Your task to perform on an android device: toggle improve location accuracy Image 0: 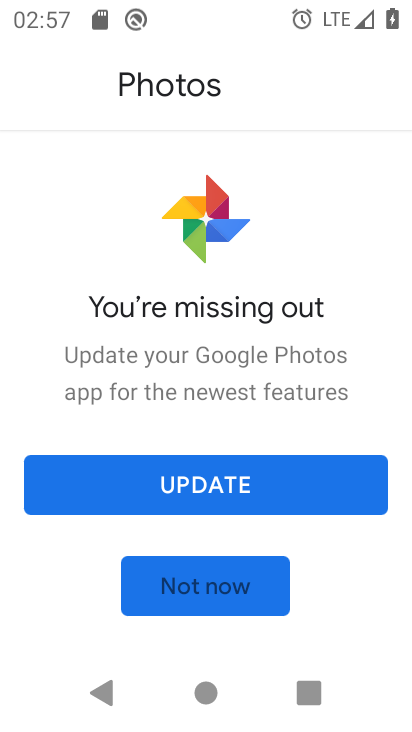
Step 0: press home button
Your task to perform on an android device: toggle improve location accuracy Image 1: 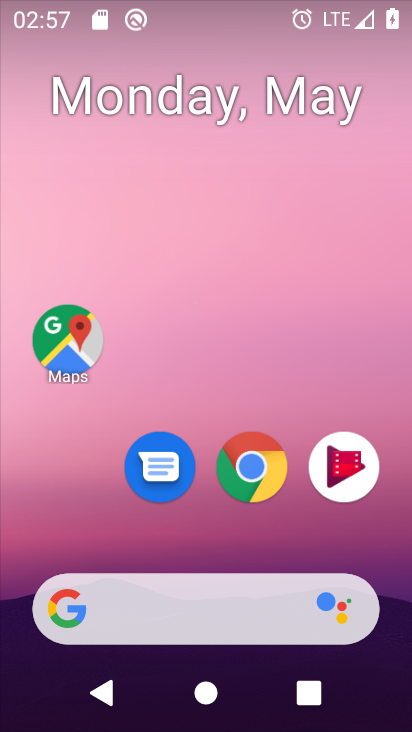
Step 1: drag from (205, 519) to (231, 80)
Your task to perform on an android device: toggle improve location accuracy Image 2: 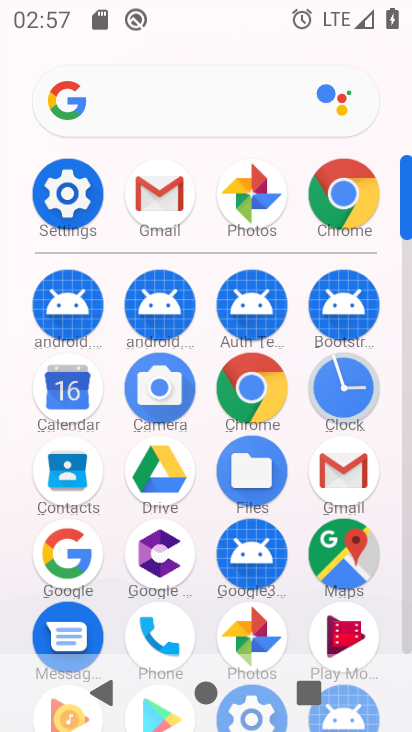
Step 2: click (80, 194)
Your task to perform on an android device: toggle improve location accuracy Image 3: 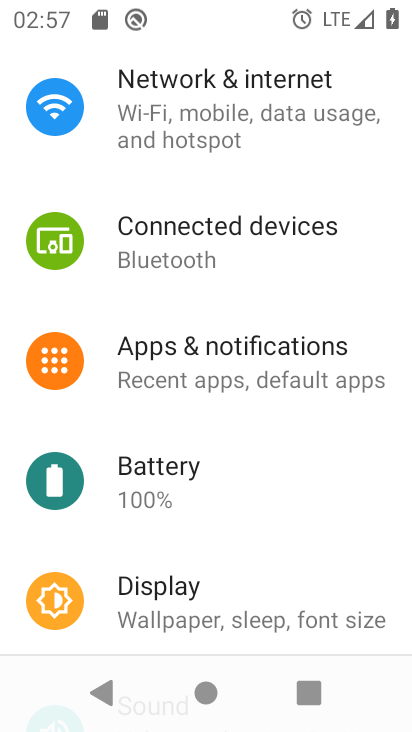
Step 3: drag from (247, 107) to (193, 543)
Your task to perform on an android device: toggle improve location accuracy Image 4: 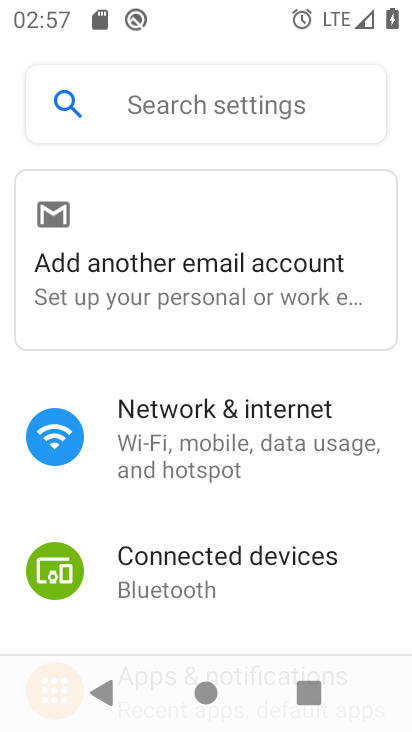
Step 4: drag from (201, 554) to (266, 243)
Your task to perform on an android device: toggle improve location accuracy Image 5: 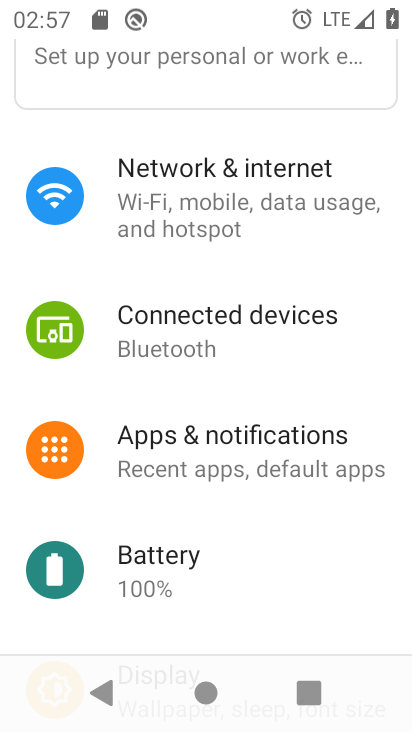
Step 5: drag from (169, 536) to (235, 168)
Your task to perform on an android device: toggle improve location accuracy Image 6: 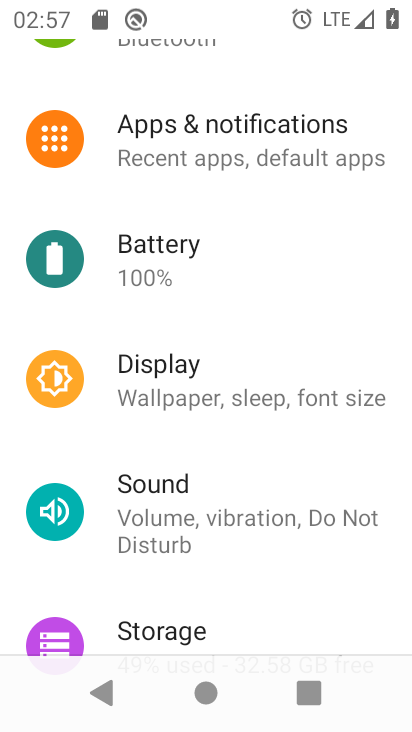
Step 6: drag from (194, 498) to (285, 121)
Your task to perform on an android device: toggle improve location accuracy Image 7: 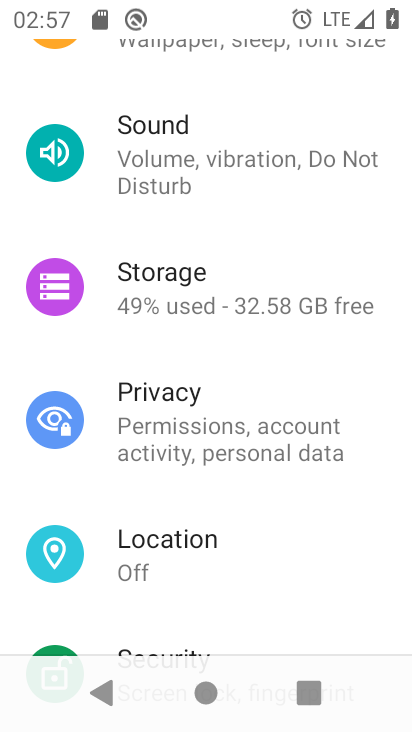
Step 7: click (157, 564)
Your task to perform on an android device: toggle improve location accuracy Image 8: 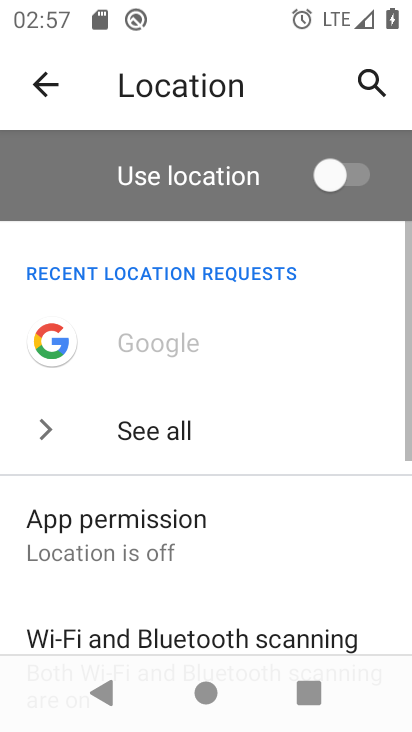
Step 8: drag from (212, 539) to (254, 307)
Your task to perform on an android device: toggle improve location accuracy Image 9: 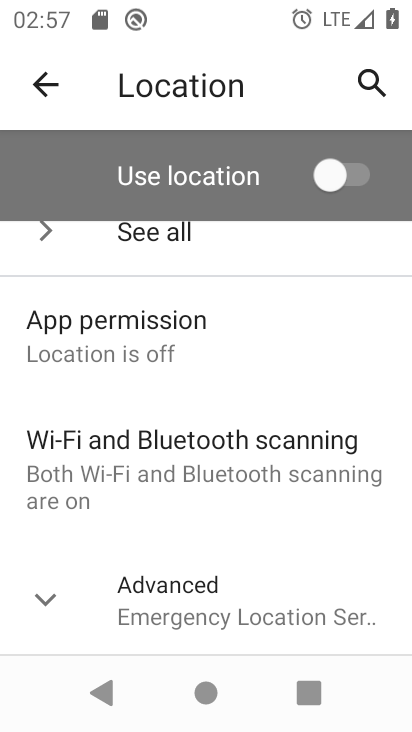
Step 9: click (208, 617)
Your task to perform on an android device: toggle improve location accuracy Image 10: 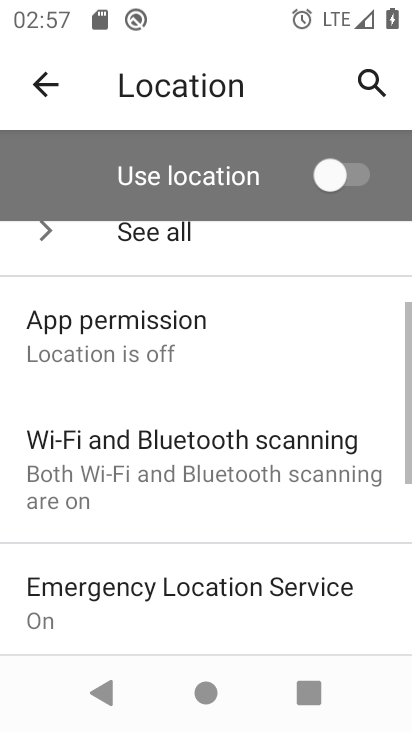
Step 10: drag from (221, 575) to (265, 308)
Your task to perform on an android device: toggle improve location accuracy Image 11: 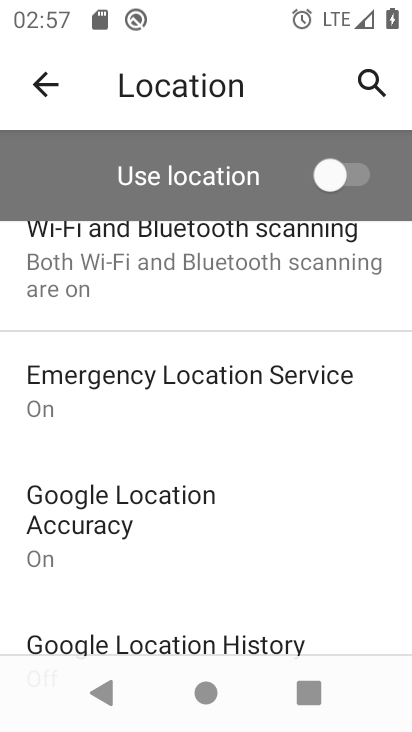
Step 11: drag from (186, 597) to (246, 326)
Your task to perform on an android device: toggle improve location accuracy Image 12: 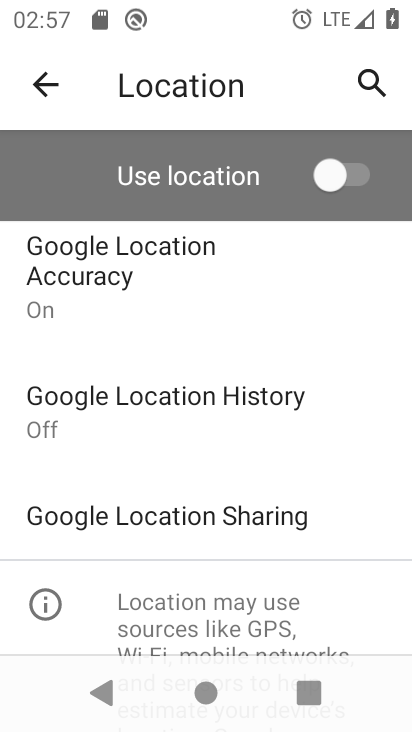
Step 12: click (182, 245)
Your task to perform on an android device: toggle improve location accuracy Image 13: 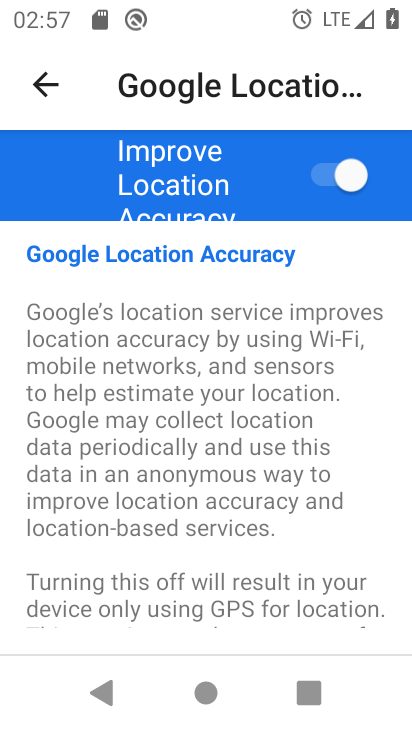
Step 13: click (328, 188)
Your task to perform on an android device: toggle improve location accuracy Image 14: 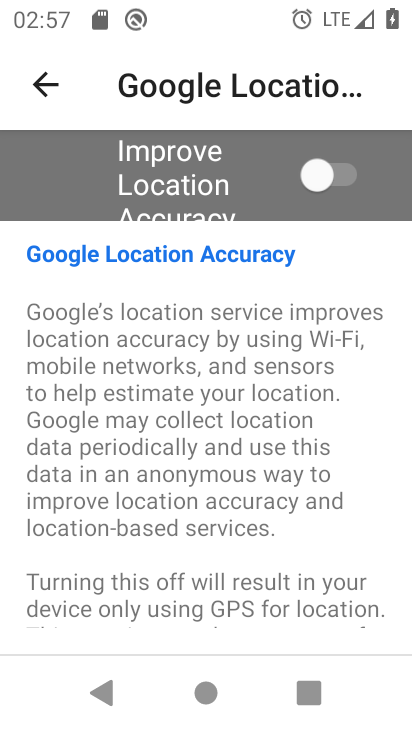
Step 14: task complete